Your task to perform on an android device: turn off picture-in-picture Image 0: 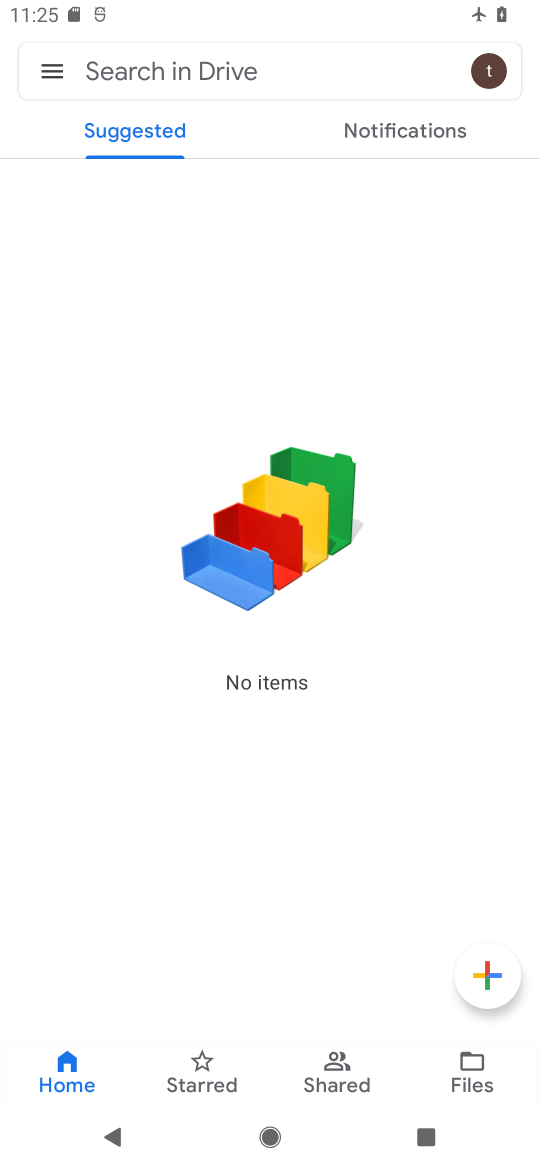
Step 0: press home button
Your task to perform on an android device: turn off picture-in-picture Image 1: 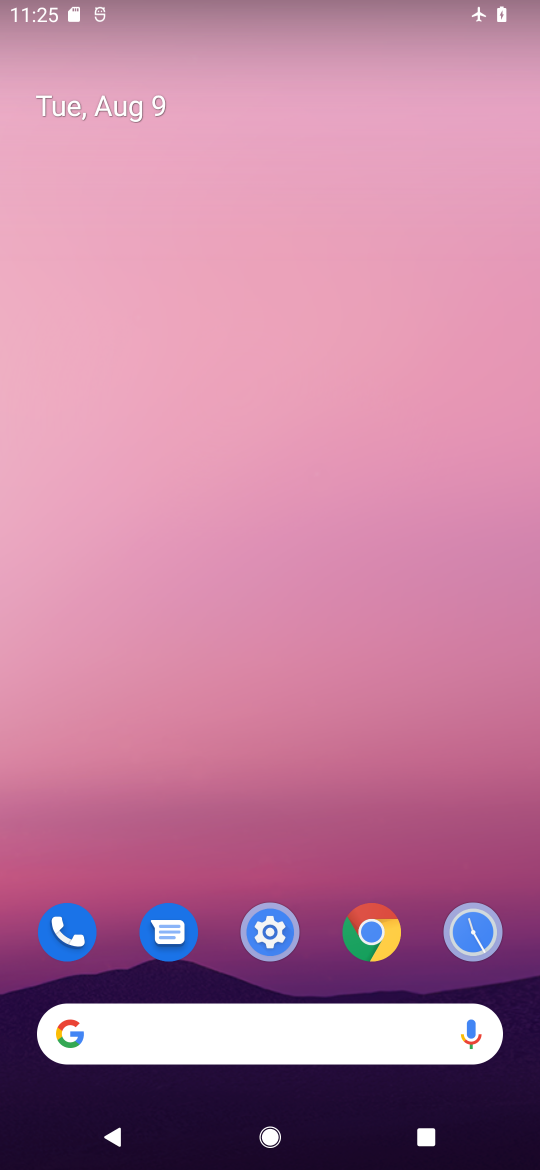
Step 1: drag from (223, 951) to (330, 220)
Your task to perform on an android device: turn off picture-in-picture Image 2: 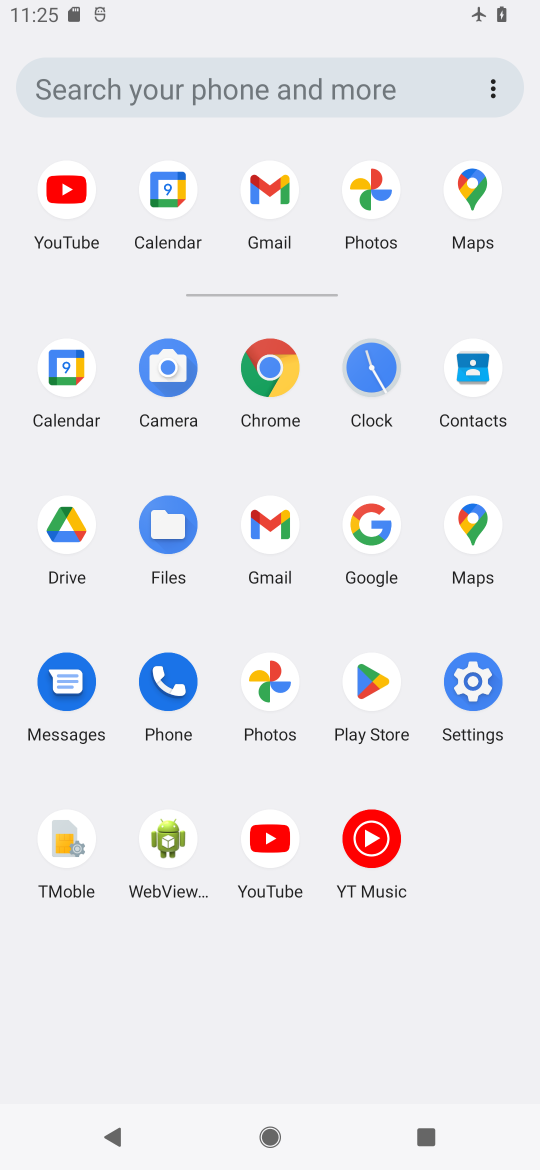
Step 2: click (266, 383)
Your task to perform on an android device: turn off picture-in-picture Image 3: 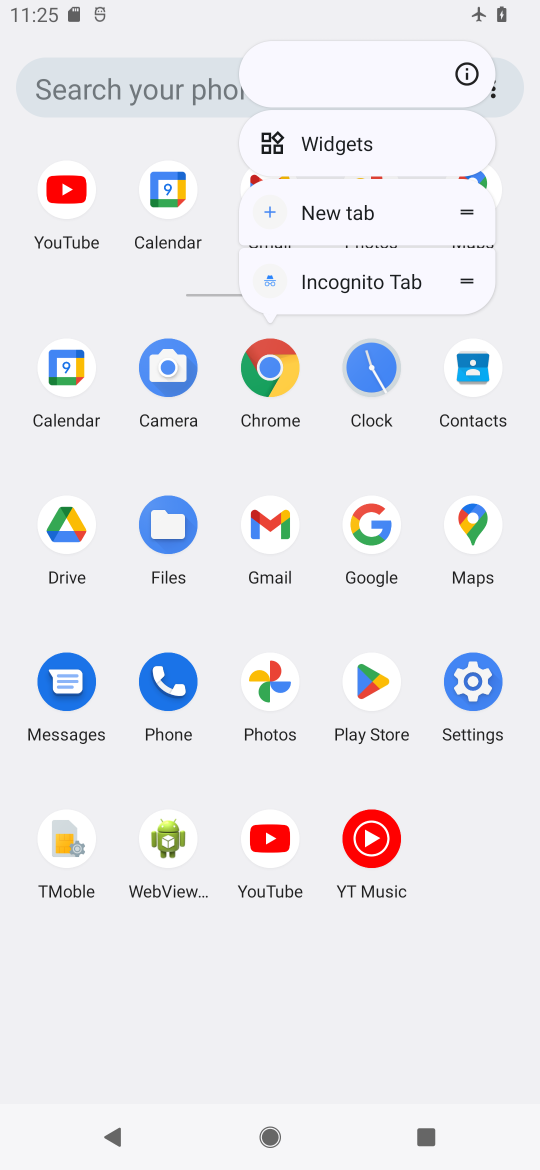
Step 3: click (463, 77)
Your task to perform on an android device: turn off picture-in-picture Image 4: 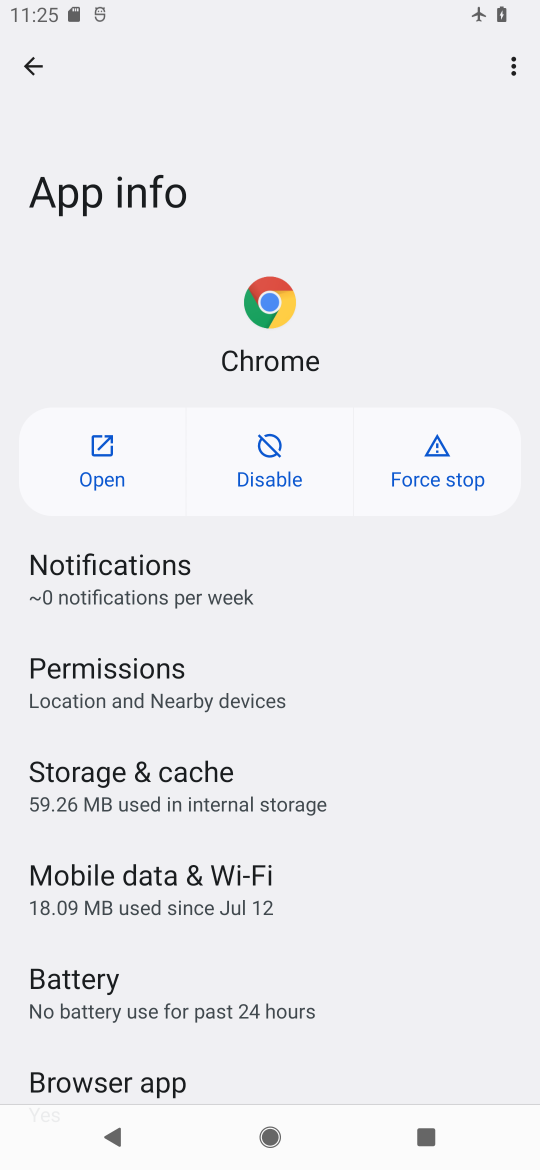
Step 4: drag from (247, 866) to (293, 588)
Your task to perform on an android device: turn off picture-in-picture Image 5: 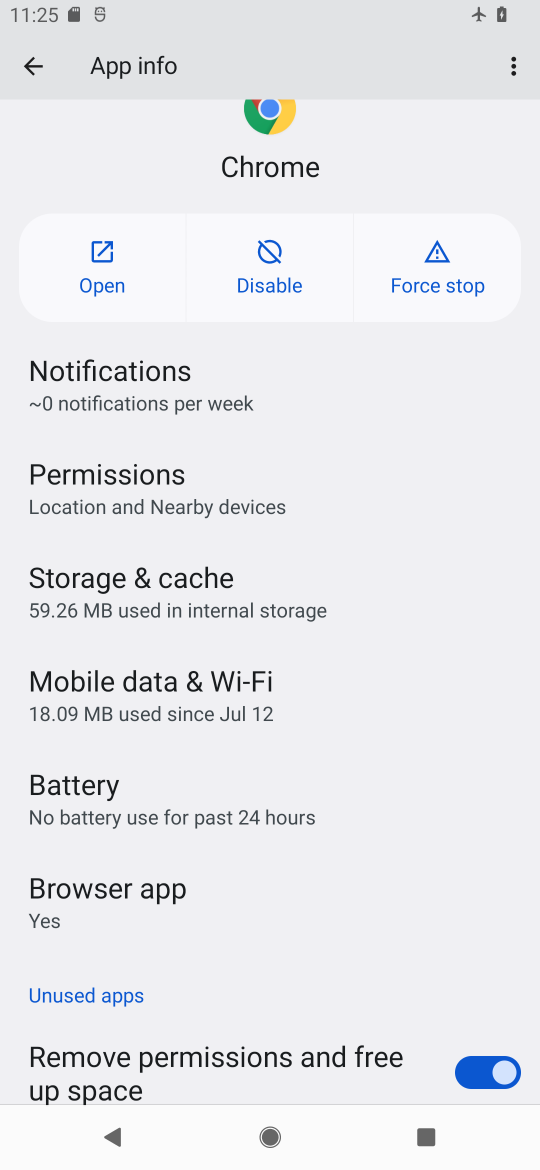
Step 5: drag from (270, 988) to (295, 448)
Your task to perform on an android device: turn off picture-in-picture Image 6: 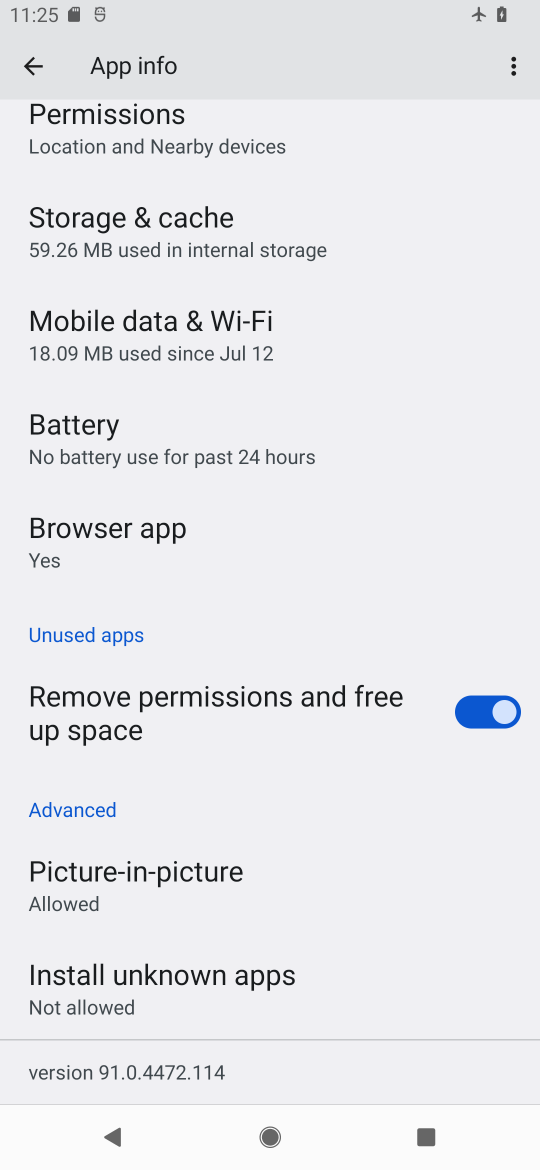
Step 6: click (124, 893)
Your task to perform on an android device: turn off picture-in-picture Image 7: 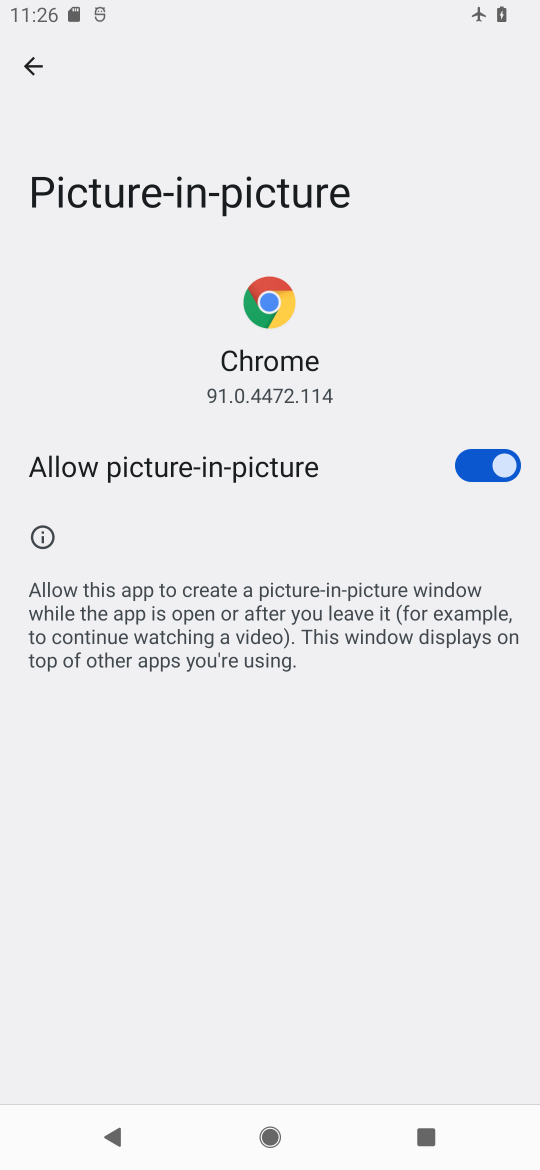
Step 7: click (448, 463)
Your task to perform on an android device: turn off picture-in-picture Image 8: 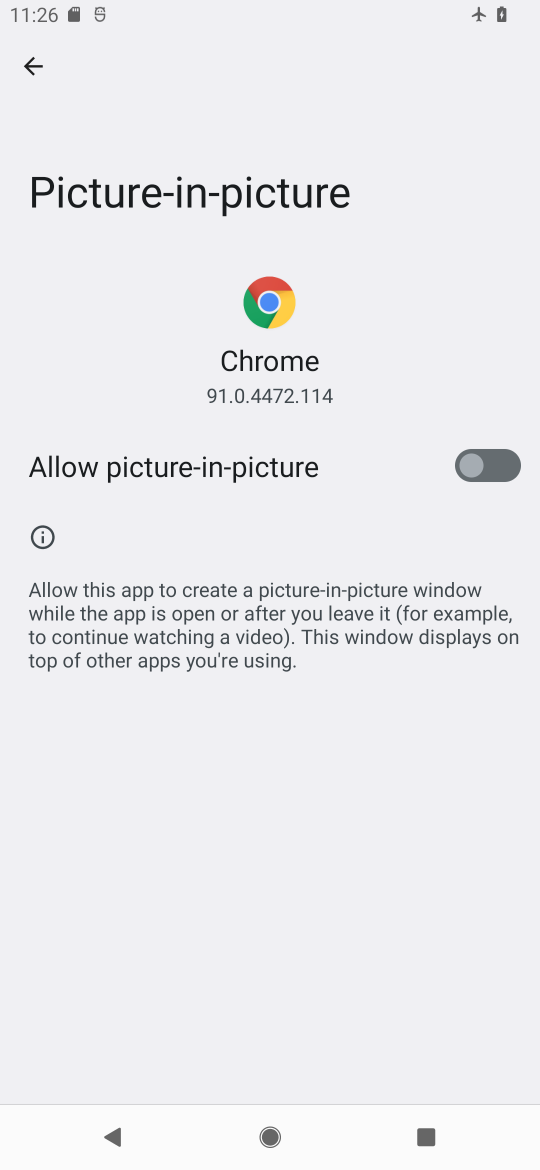
Step 8: task complete